Your task to perform on an android device: Find coffee shops on Maps Image 0: 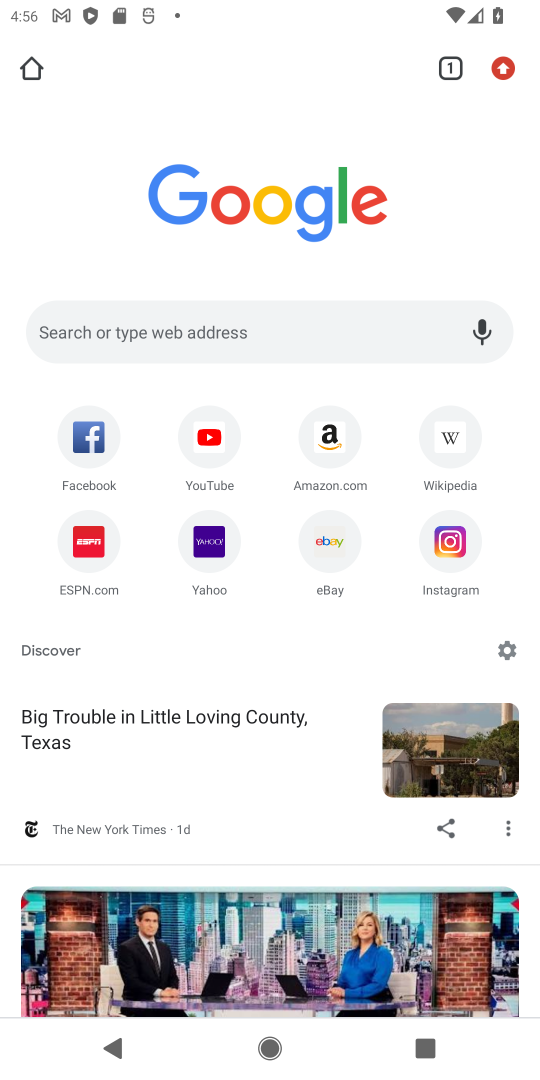
Step 0: press home button
Your task to perform on an android device: Find coffee shops on Maps Image 1: 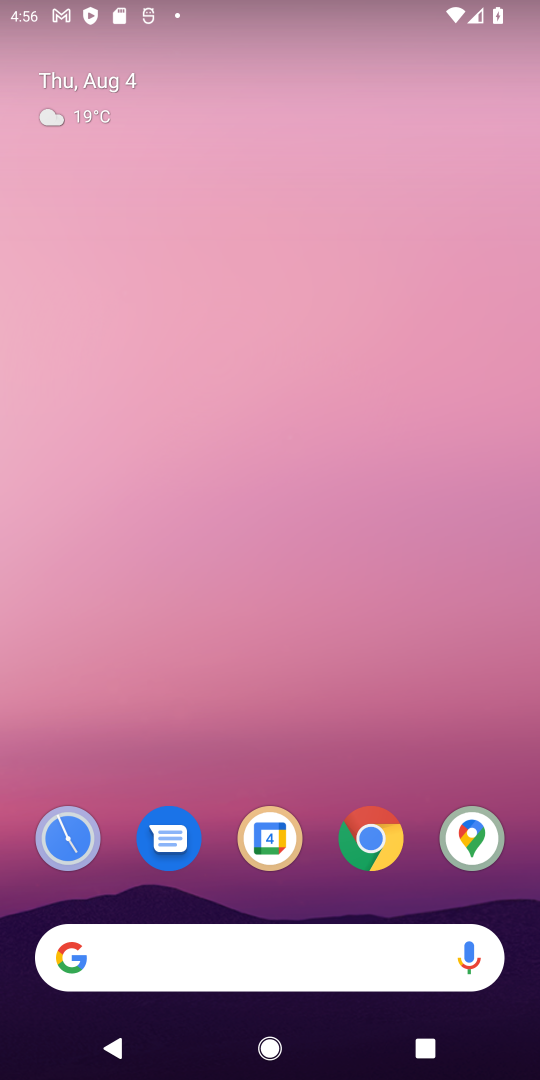
Step 1: drag from (375, 787) to (251, 20)
Your task to perform on an android device: Find coffee shops on Maps Image 2: 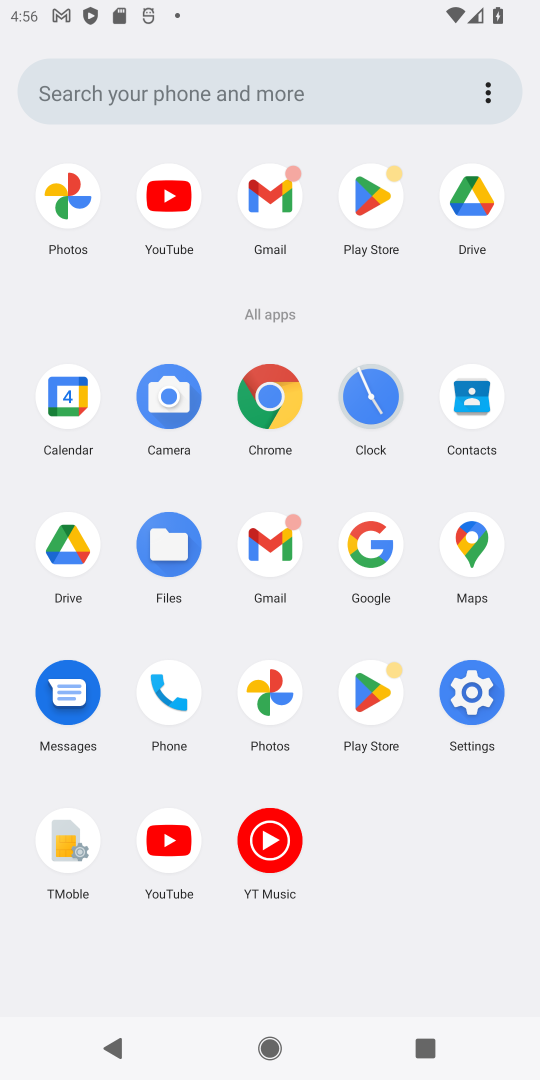
Step 2: click (478, 545)
Your task to perform on an android device: Find coffee shops on Maps Image 3: 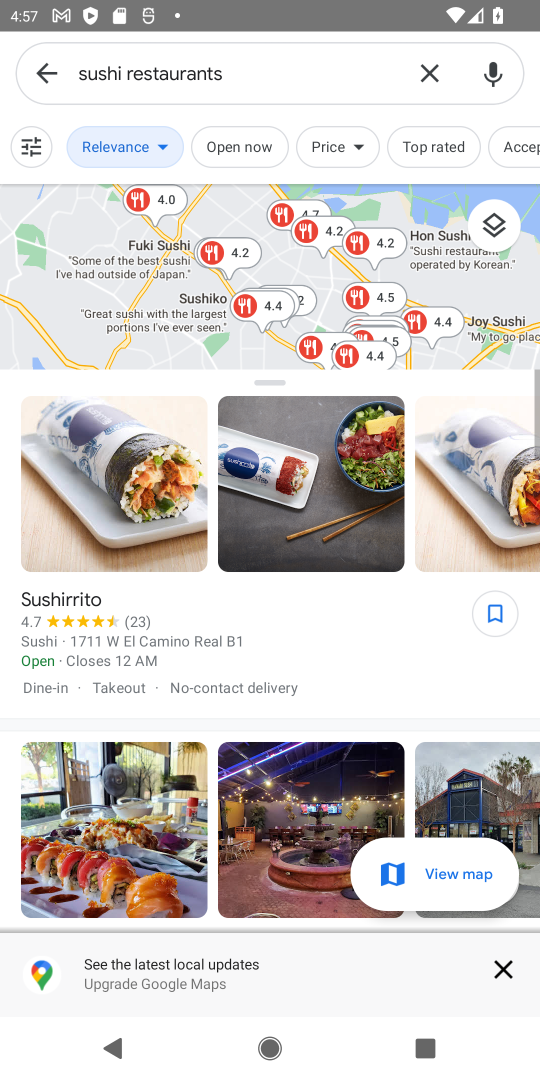
Step 3: click (434, 78)
Your task to perform on an android device: Find coffee shops on Maps Image 4: 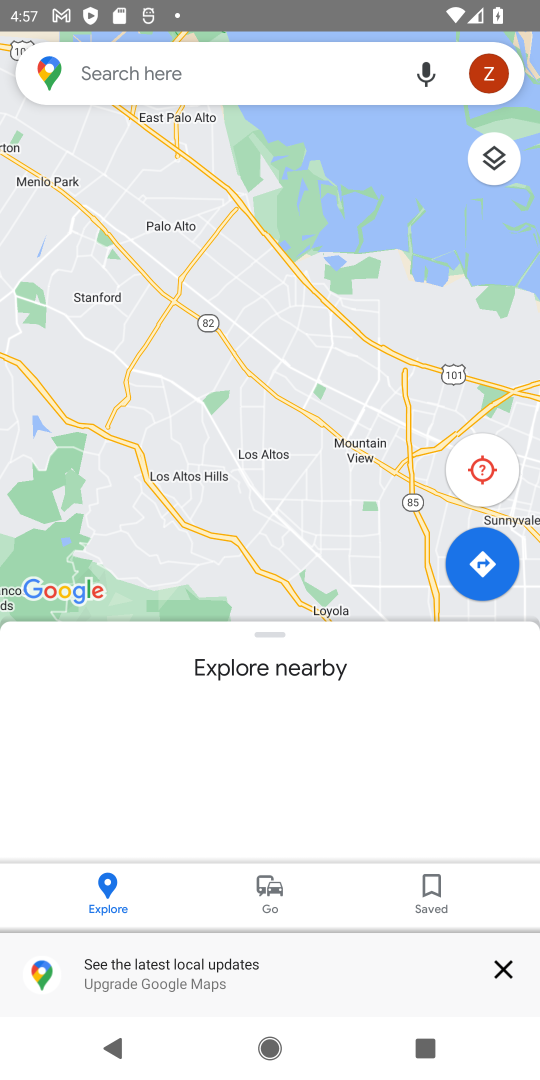
Step 4: click (187, 80)
Your task to perform on an android device: Find coffee shops on Maps Image 5: 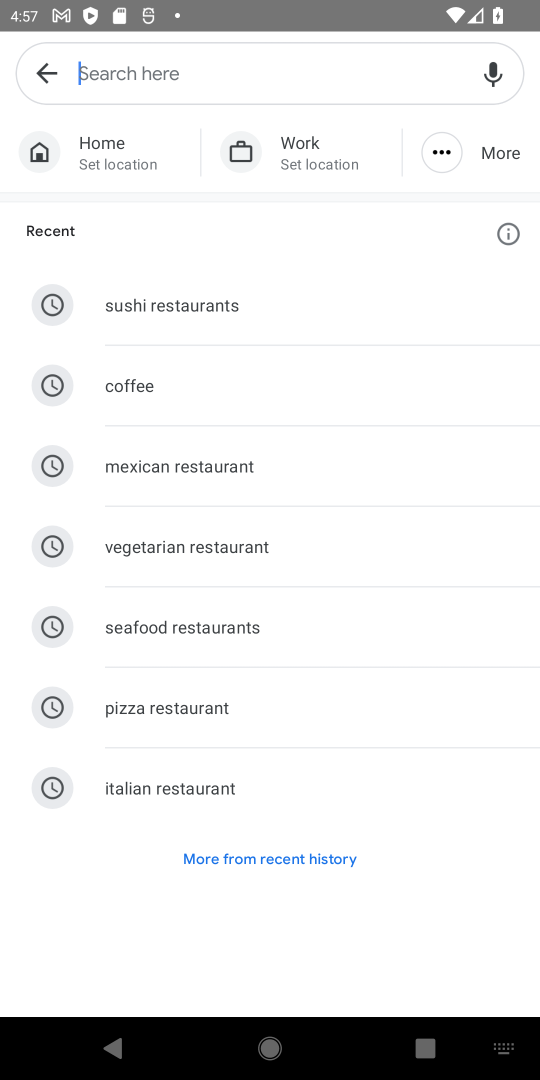
Step 5: type "coffee shops "
Your task to perform on an android device: Find coffee shops on Maps Image 6: 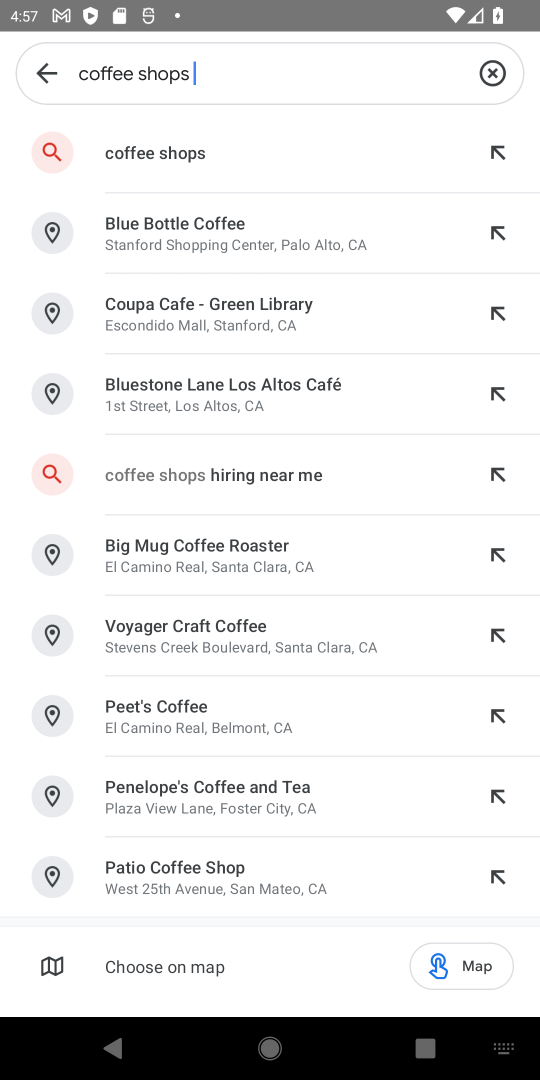
Step 6: click (246, 156)
Your task to perform on an android device: Find coffee shops on Maps Image 7: 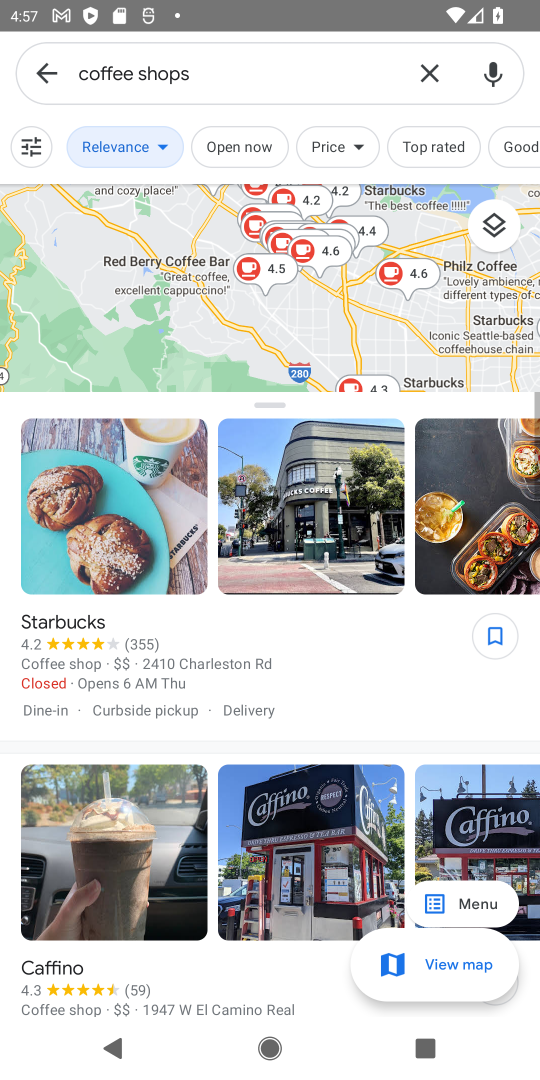
Step 7: task complete